Your task to perform on an android device: Go to notification settings Image 0: 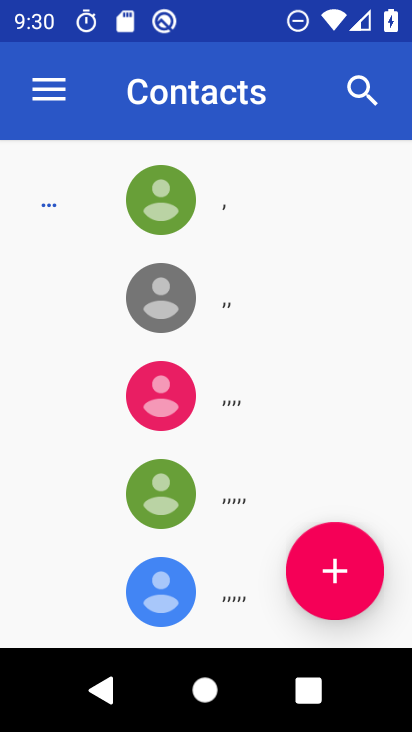
Step 0: press home button
Your task to perform on an android device: Go to notification settings Image 1: 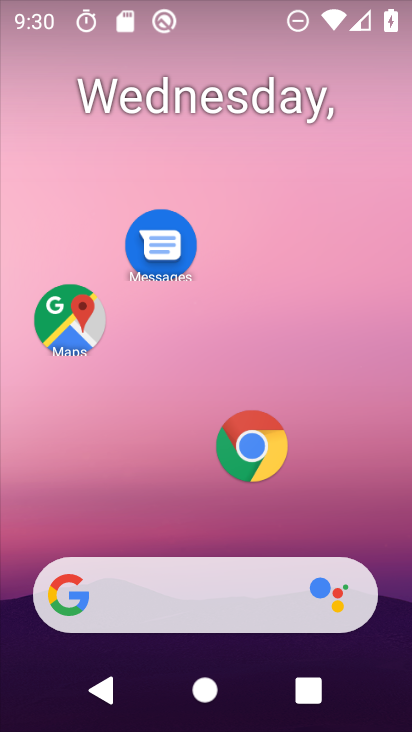
Step 1: drag from (195, 522) to (212, 96)
Your task to perform on an android device: Go to notification settings Image 2: 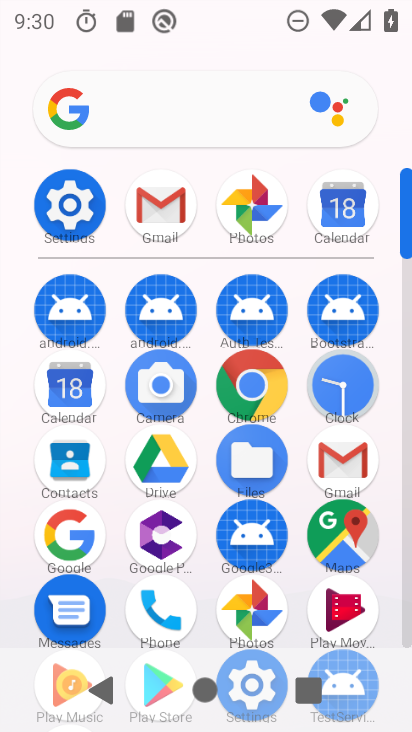
Step 2: click (68, 198)
Your task to perform on an android device: Go to notification settings Image 3: 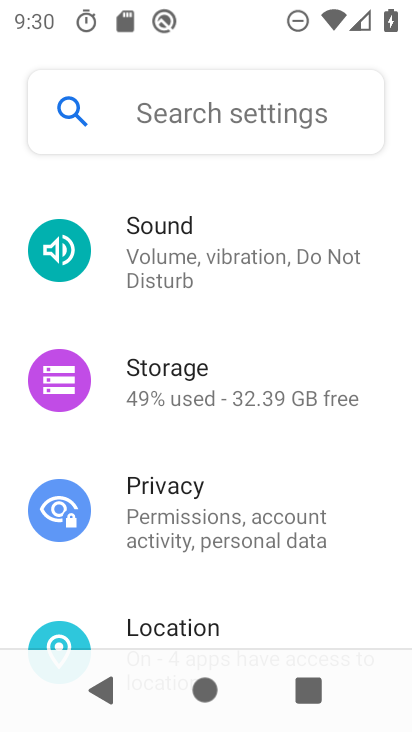
Step 3: drag from (201, 228) to (203, 628)
Your task to perform on an android device: Go to notification settings Image 4: 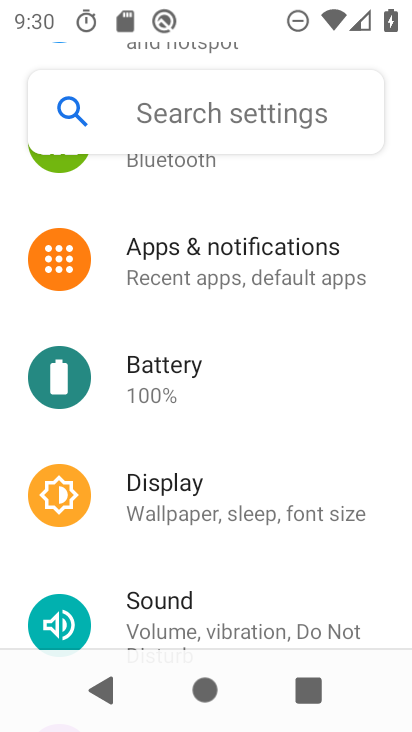
Step 4: click (188, 251)
Your task to perform on an android device: Go to notification settings Image 5: 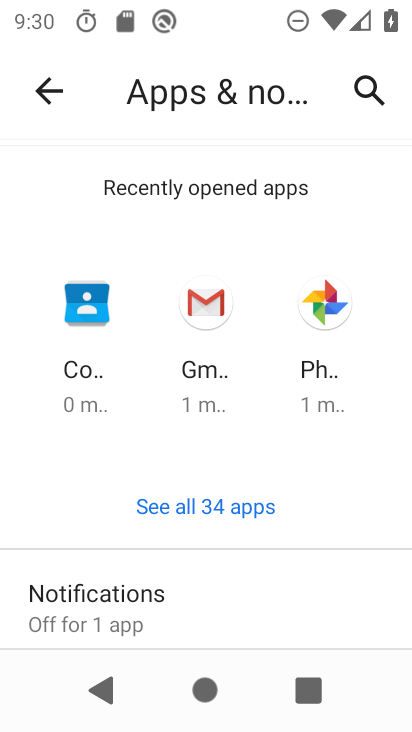
Step 5: click (160, 615)
Your task to perform on an android device: Go to notification settings Image 6: 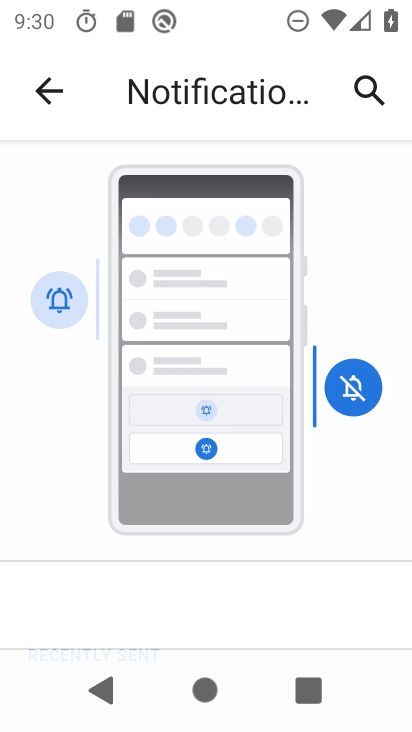
Step 6: drag from (134, 590) to (182, 186)
Your task to perform on an android device: Go to notification settings Image 7: 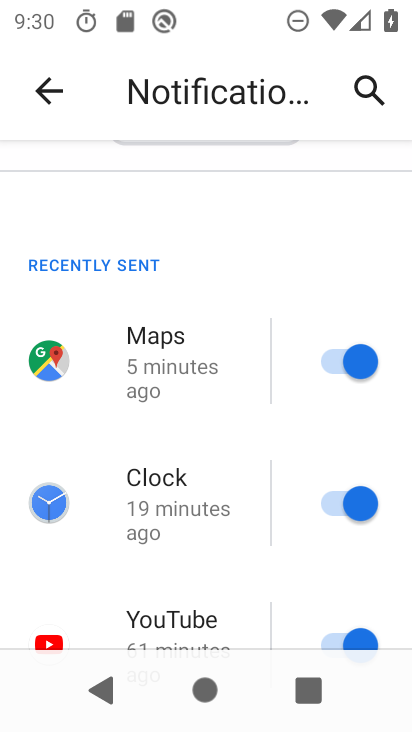
Step 7: drag from (222, 604) to (244, 69)
Your task to perform on an android device: Go to notification settings Image 8: 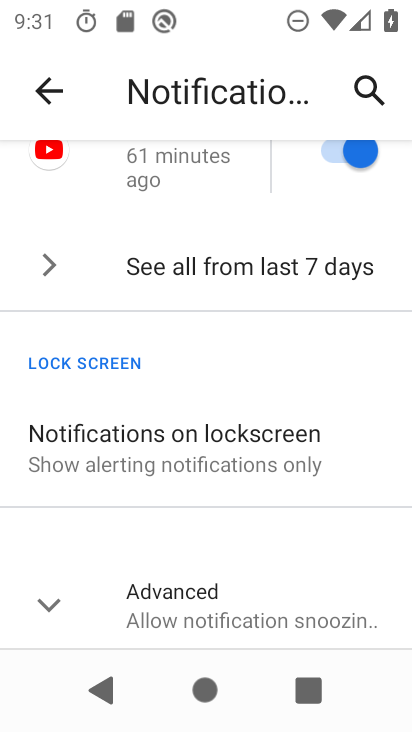
Step 8: click (38, 595)
Your task to perform on an android device: Go to notification settings Image 9: 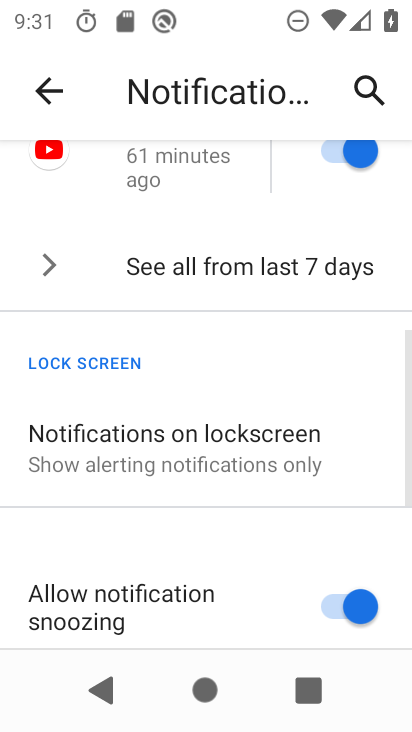
Step 9: task complete